Your task to perform on an android device: turn notification dots on Image 0: 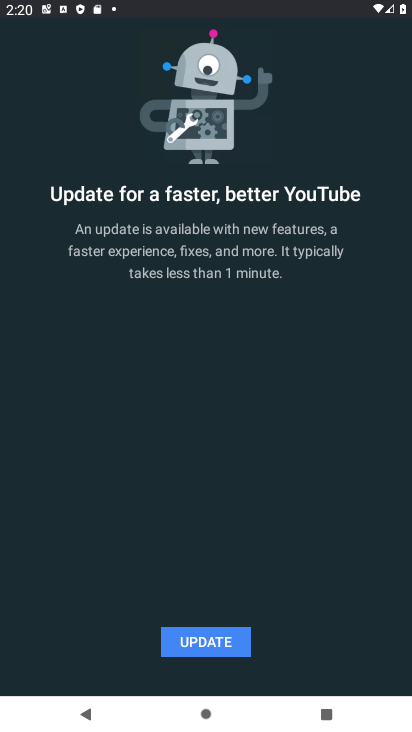
Step 0: press home button
Your task to perform on an android device: turn notification dots on Image 1: 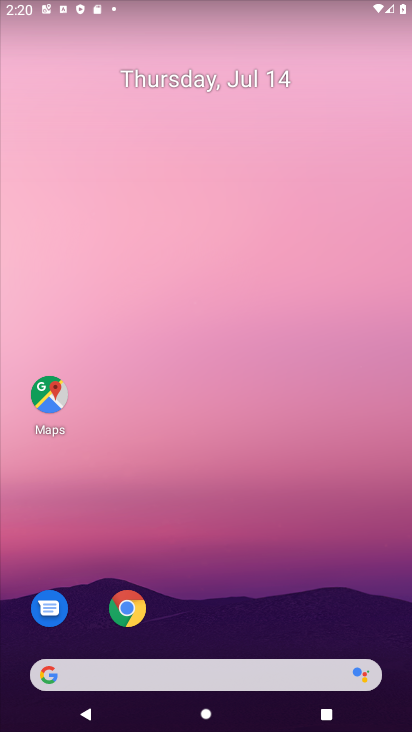
Step 1: drag from (400, 649) to (339, 126)
Your task to perform on an android device: turn notification dots on Image 2: 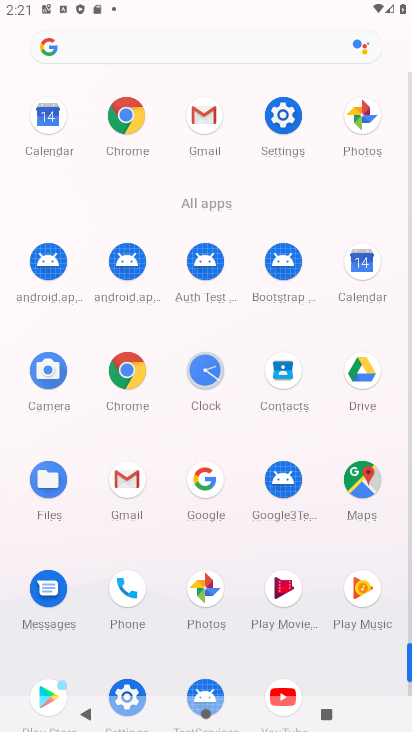
Step 2: click (409, 633)
Your task to perform on an android device: turn notification dots on Image 3: 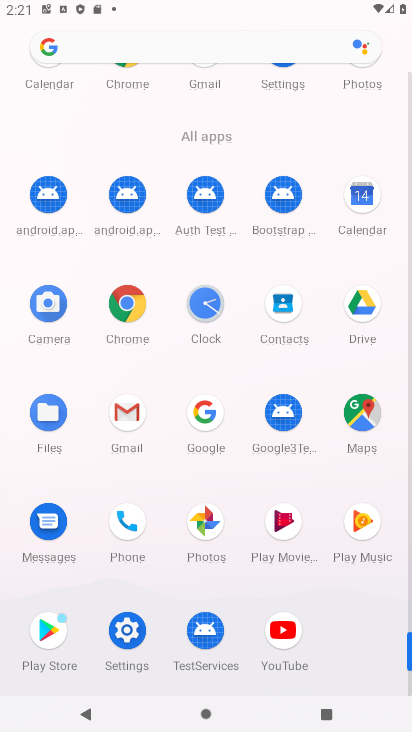
Step 3: click (126, 628)
Your task to perform on an android device: turn notification dots on Image 4: 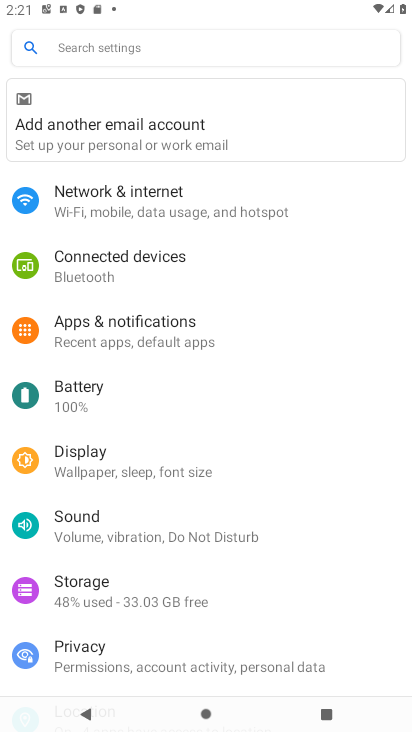
Step 4: click (130, 315)
Your task to perform on an android device: turn notification dots on Image 5: 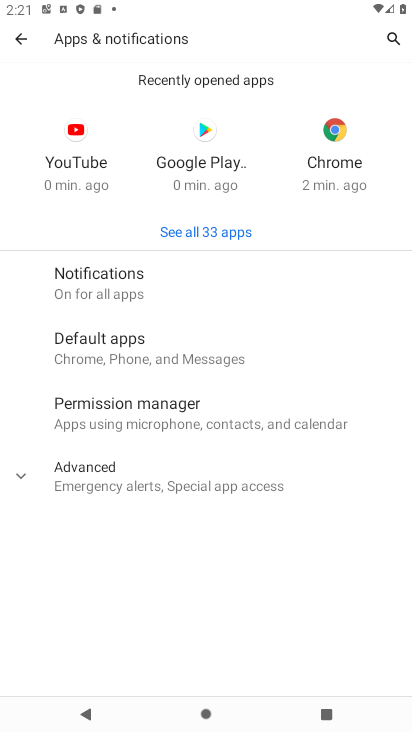
Step 5: click (77, 284)
Your task to perform on an android device: turn notification dots on Image 6: 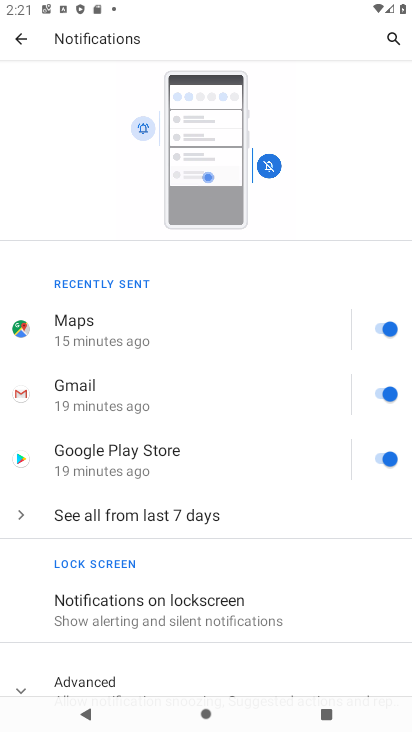
Step 6: drag from (304, 625) to (314, 218)
Your task to perform on an android device: turn notification dots on Image 7: 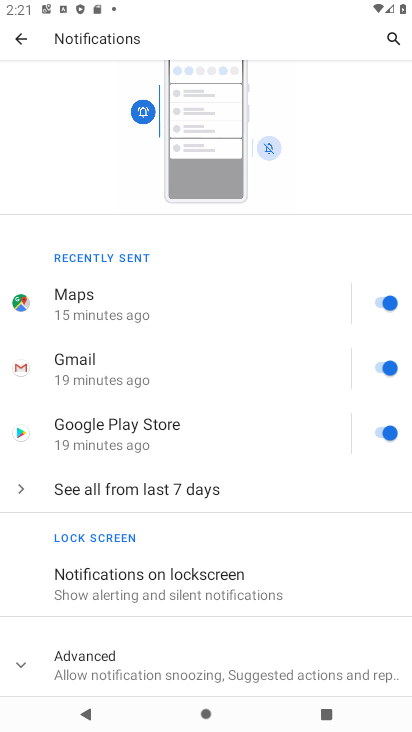
Step 7: click (14, 661)
Your task to perform on an android device: turn notification dots on Image 8: 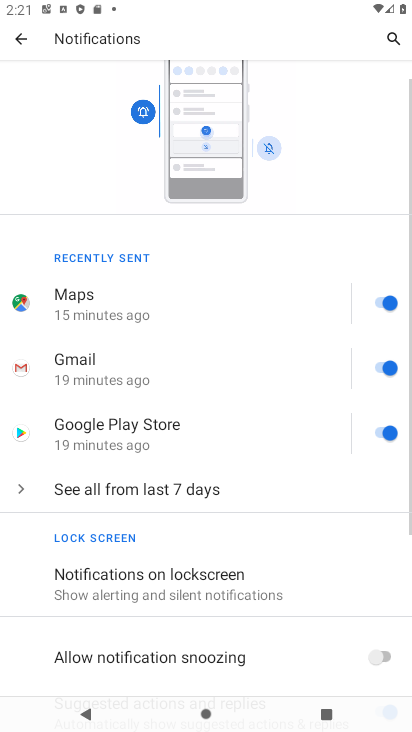
Step 8: task complete